Your task to perform on an android device: turn off picture-in-picture Image 0: 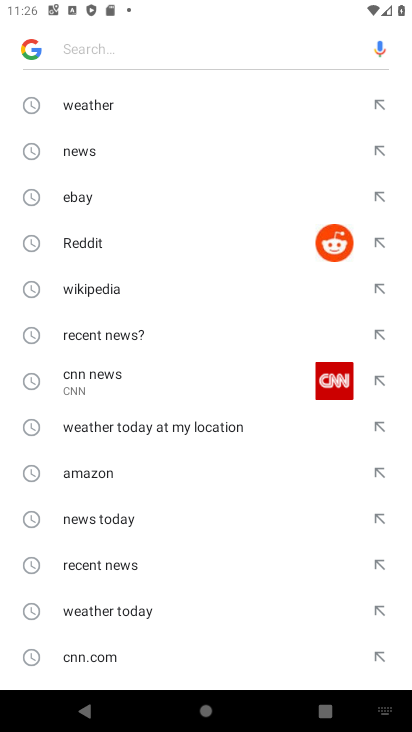
Step 0: press home button
Your task to perform on an android device: turn off picture-in-picture Image 1: 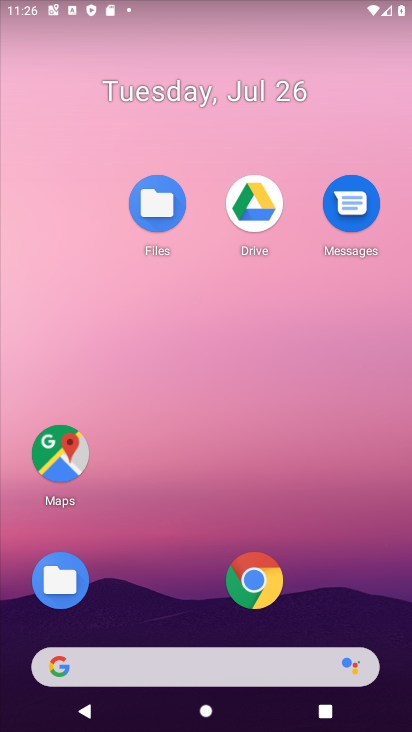
Step 1: click (255, 581)
Your task to perform on an android device: turn off picture-in-picture Image 2: 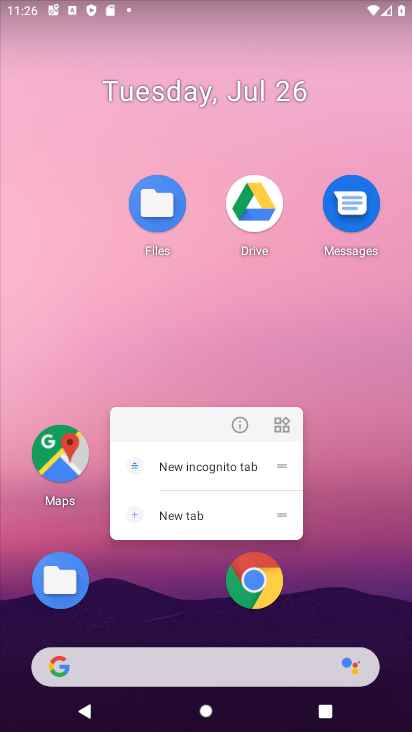
Step 2: click (236, 428)
Your task to perform on an android device: turn off picture-in-picture Image 3: 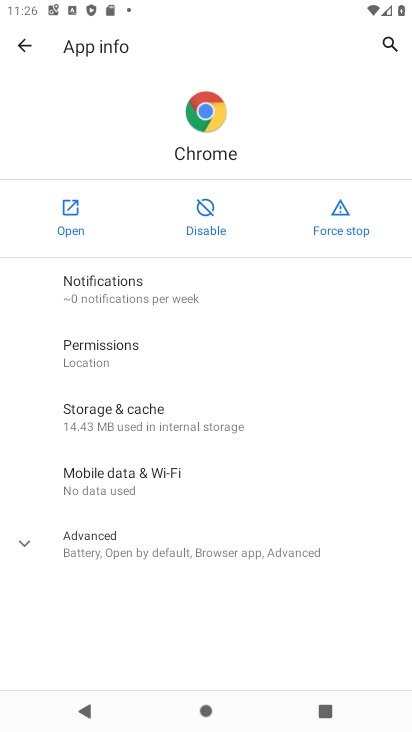
Step 3: click (95, 567)
Your task to perform on an android device: turn off picture-in-picture Image 4: 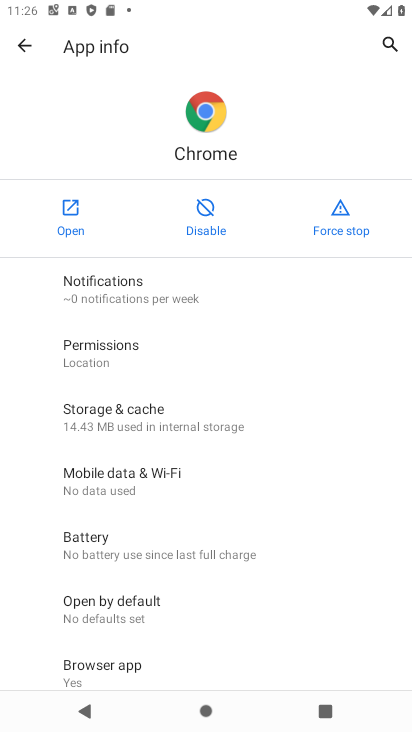
Step 4: drag from (237, 655) to (253, 86)
Your task to perform on an android device: turn off picture-in-picture Image 5: 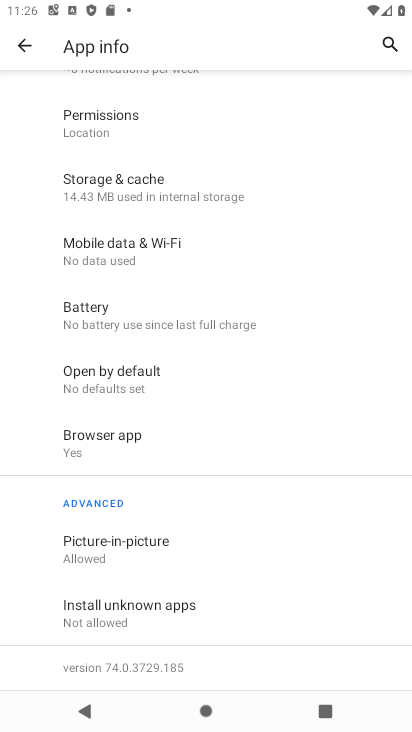
Step 5: click (112, 537)
Your task to perform on an android device: turn off picture-in-picture Image 6: 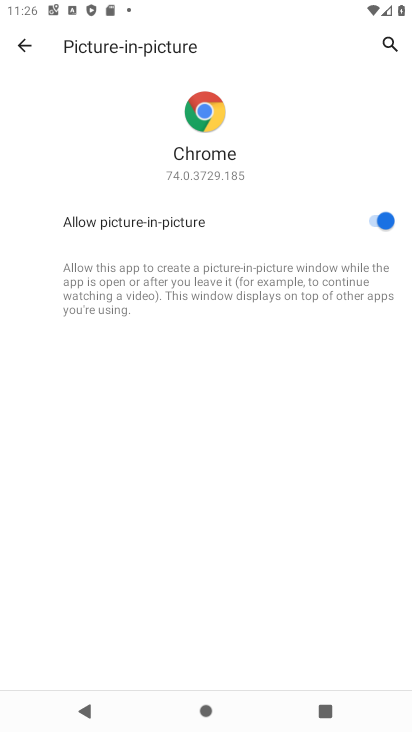
Step 6: click (367, 221)
Your task to perform on an android device: turn off picture-in-picture Image 7: 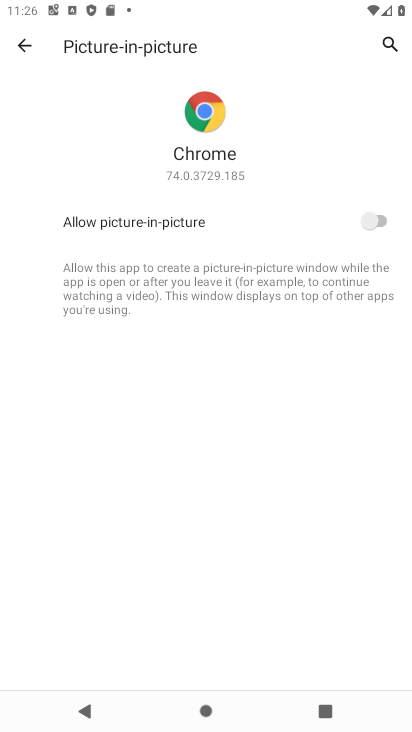
Step 7: task complete